Your task to perform on an android device: empty trash in google photos Image 0: 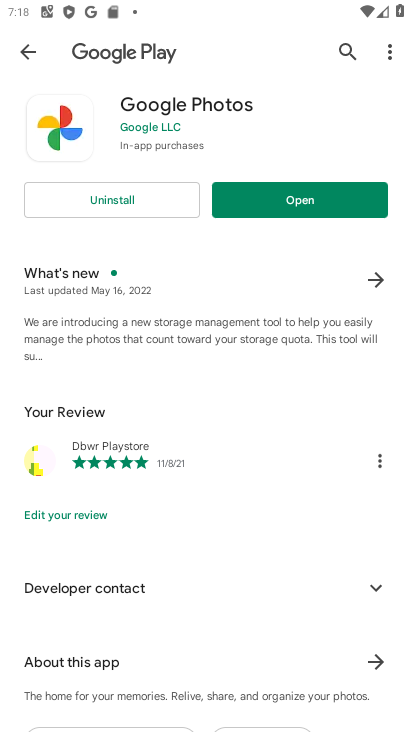
Step 0: press home button
Your task to perform on an android device: empty trash in google photos Image 1: 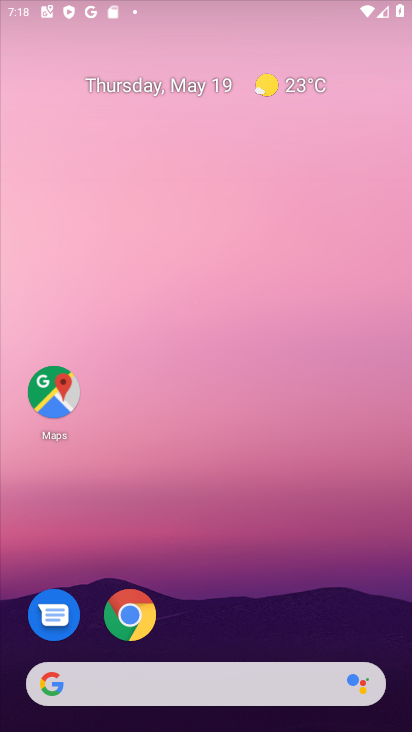
Step 1: drag from (369, 621) to (328, 69)
Your task to perform on an android device: empty trash in google photos Image 2: 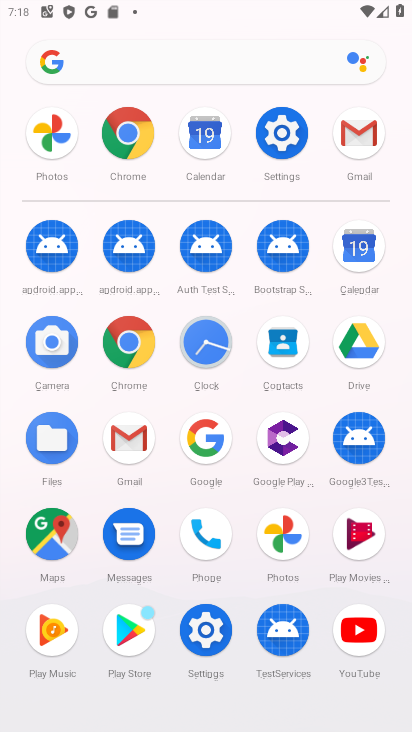
Step 2: click (278, 508)
Your task to perform on an android device: empty trash in google photos Image 3: 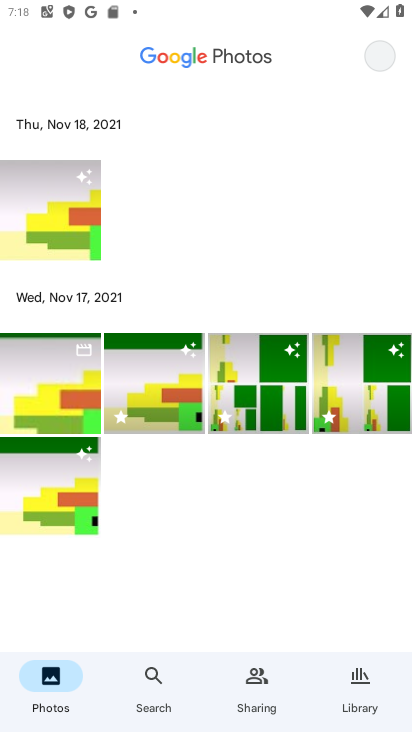
Step 3: click (370, 699)
Your task to perform on an android device: empty trash in google photos Image 4: 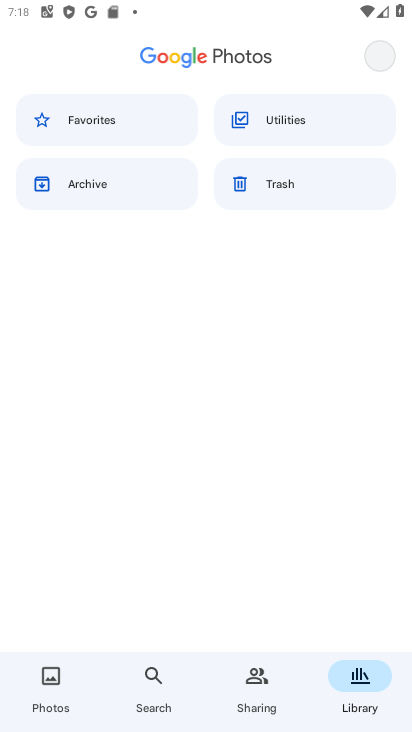
Step 4: click (326, 183)
Your task to perform on an android device: empty trash in google photos Image 5: 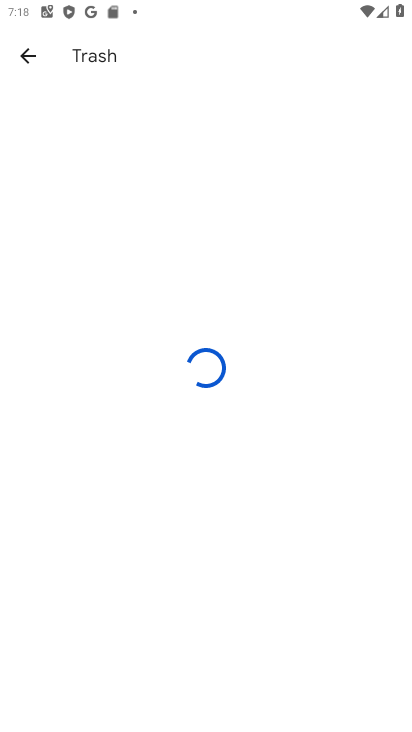
Step 5: task complete